Your task to perform on an android device: Open maps Image 0: 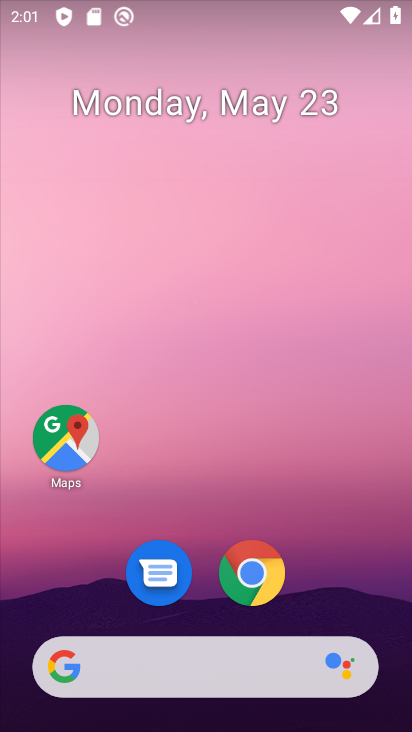
Step 0: click (72, 438)
Your task to perform on an android device: Open maps Image 1: 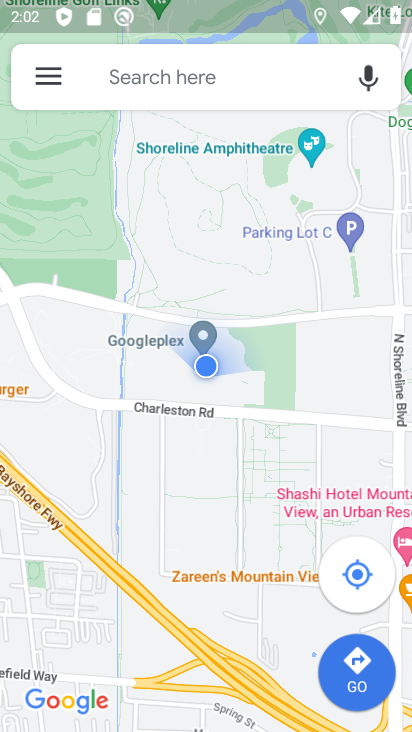
Step 1: task complete